Your task to perform on an android device: Open Google Maps and go to "Timeline" Image 0: 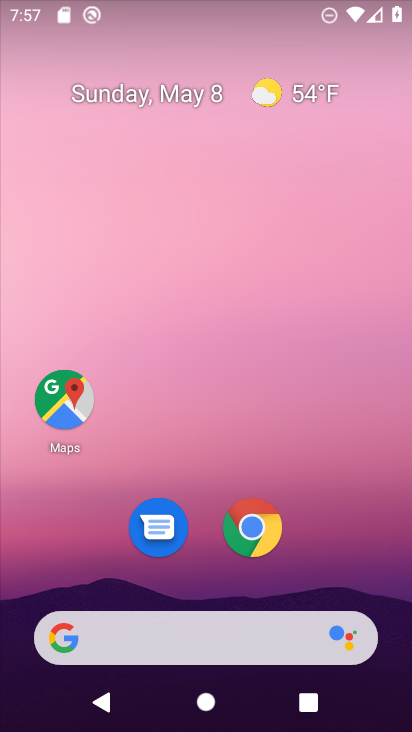
Step 0: drag from (336, 417) to (337, 83)
Your task to perform on an android device: Open Google Maps and go to "Timeline" Image 1: 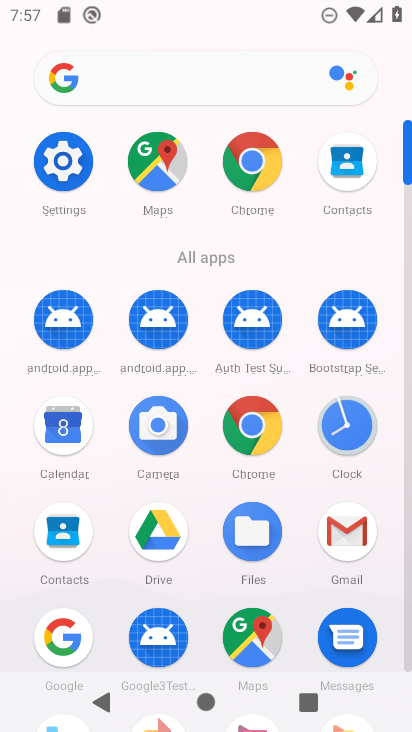
Step 1: click (254, 638)
Your task to perform on an android device: Open Google Maps and go to "Timeline" Image 2: 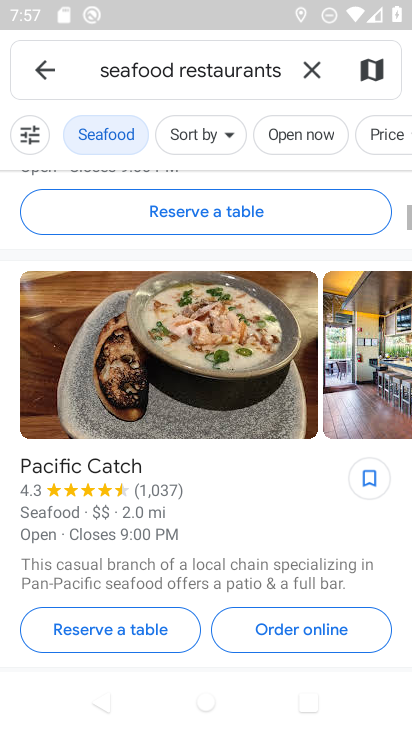
Step 2: click (45, 60)
Your task to perform on an android device: Open Google Maps and go to "Timeline" Image 3: 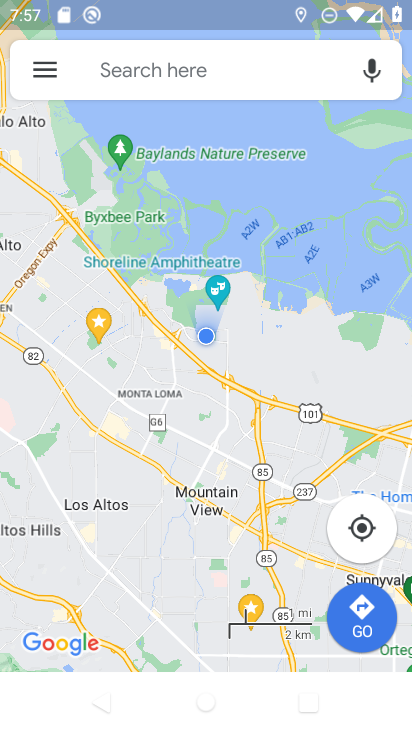
Step 3: click (45, 60)
Your task to perform on an android device: Open Google Maps and go to "Timeline" Image 4: 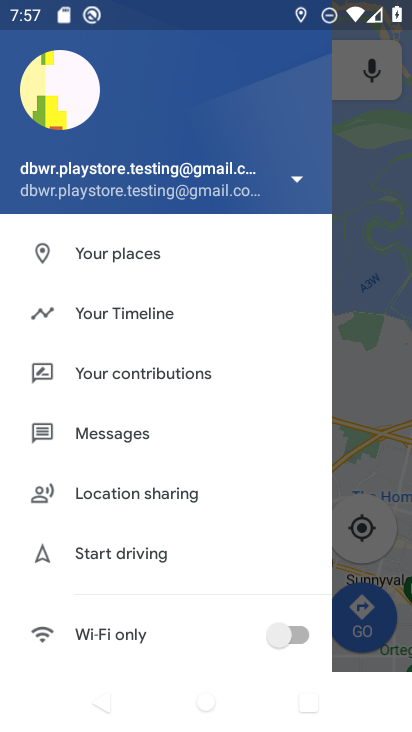
Step 4: click (159, 304)
Your task to perform on an android device: Open Google Maps and go to "Timeline" Image 5: 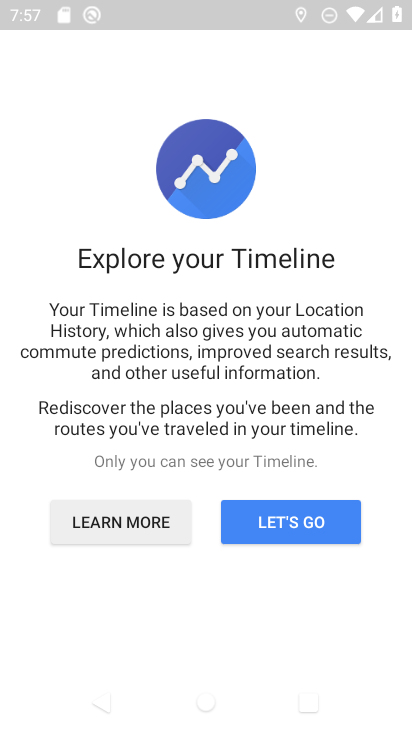
Step 5: click (266, 519)
Your task to perform on an android device: Open Google Maps and go to "Timeline" Image 6: 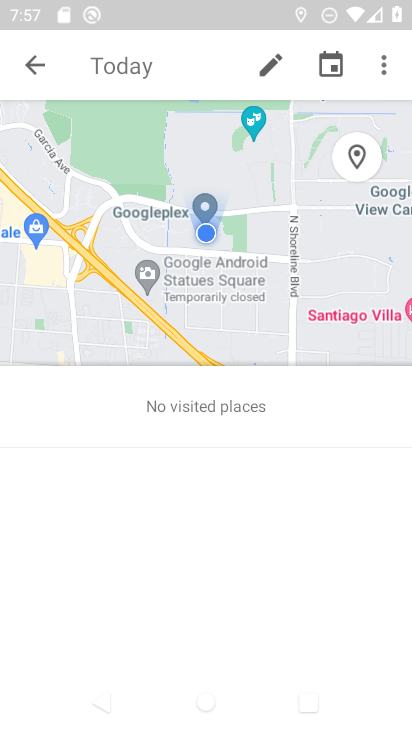
Step 6: task complete